Your task to perform on an android device: snooze an email in the gmail app Image 0: 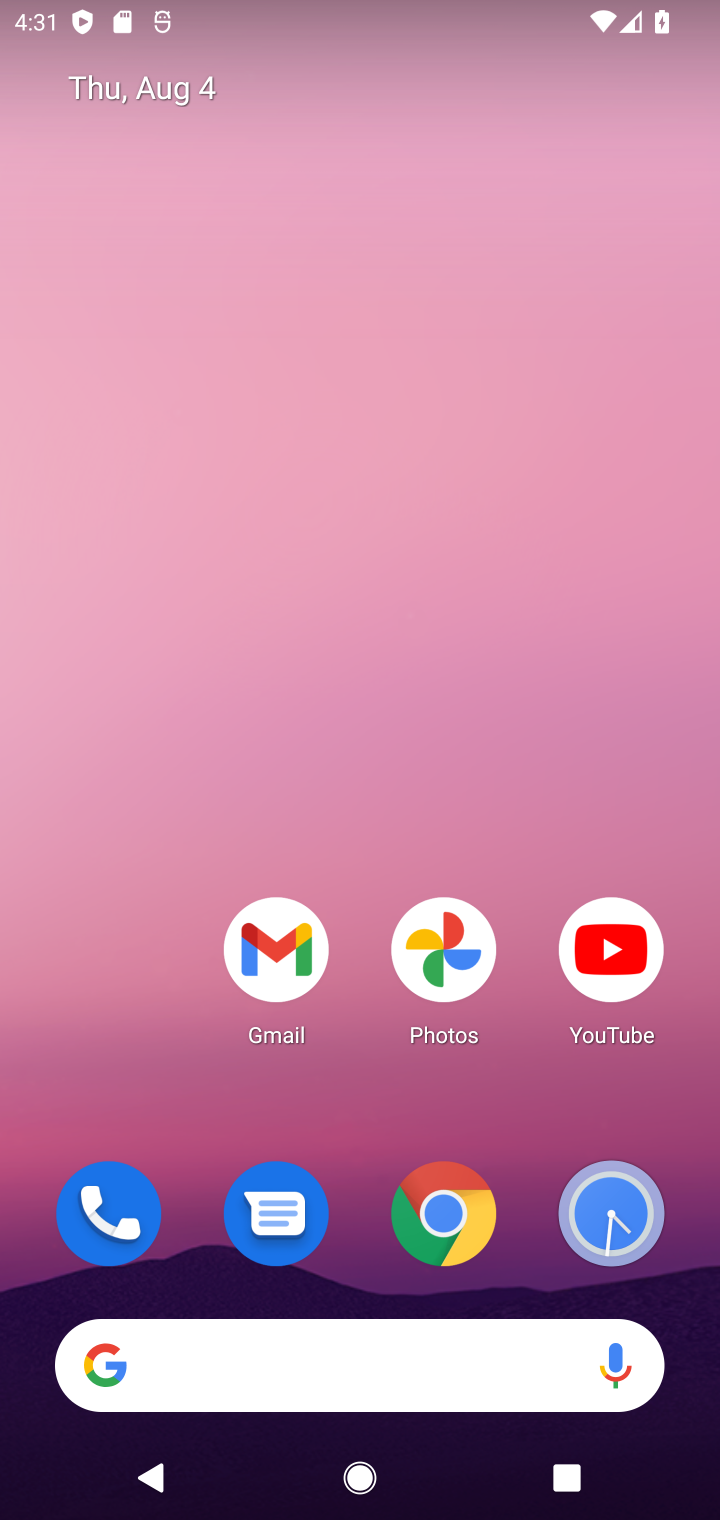
Step 0: drag from (281, 1394) to (338, 308)
Your task to perform on an android device: snooze an email in the gmail app Image 1: 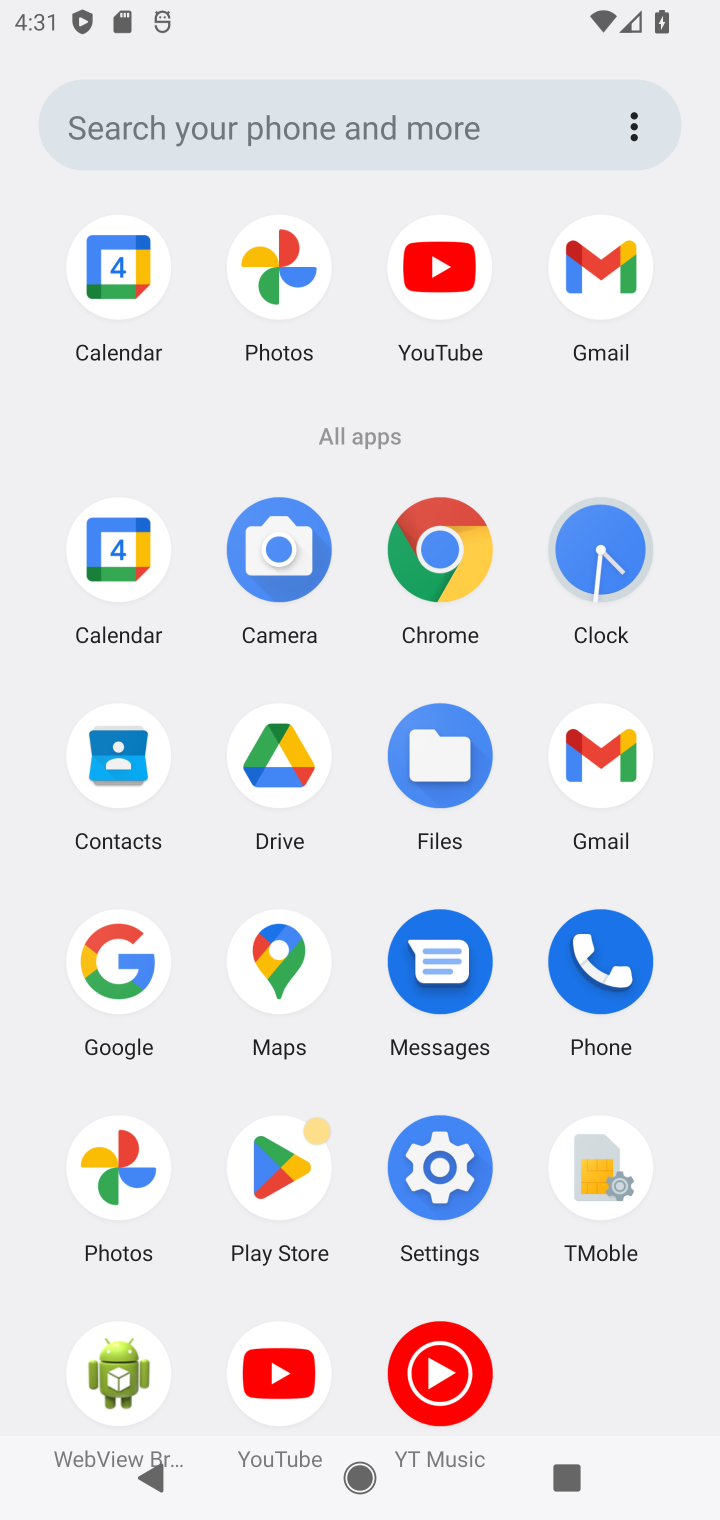
Step 1: click (607, 760)
Your task to perform on an android device: snooze an email in the gmail app Image 2: 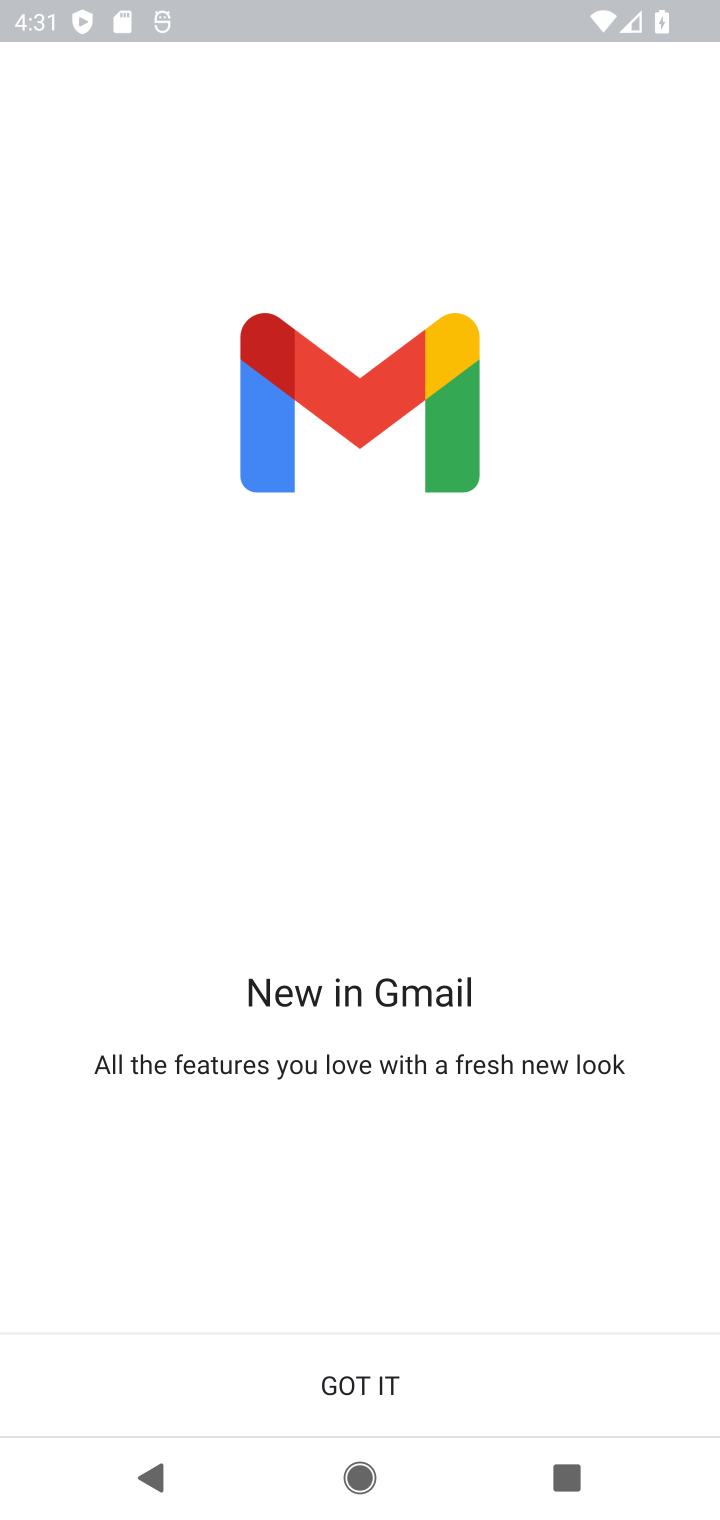
Step 2: click (357, 1378)
Your task to perform on an android device: snooze an email in the gmail app Image 3: 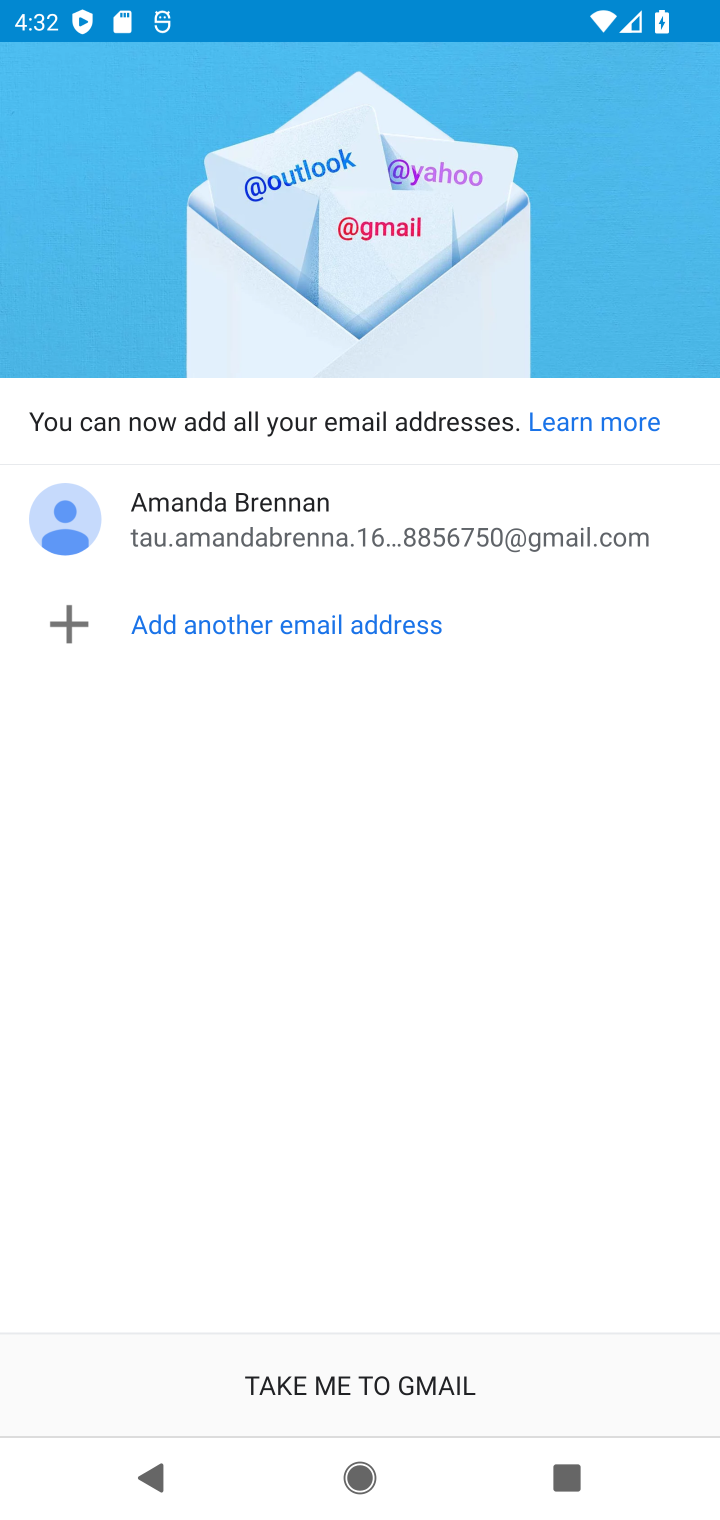
Step 3: click (356, 1386)
Your task to perform on an android device: snooze an email in the gmail app Image 4: 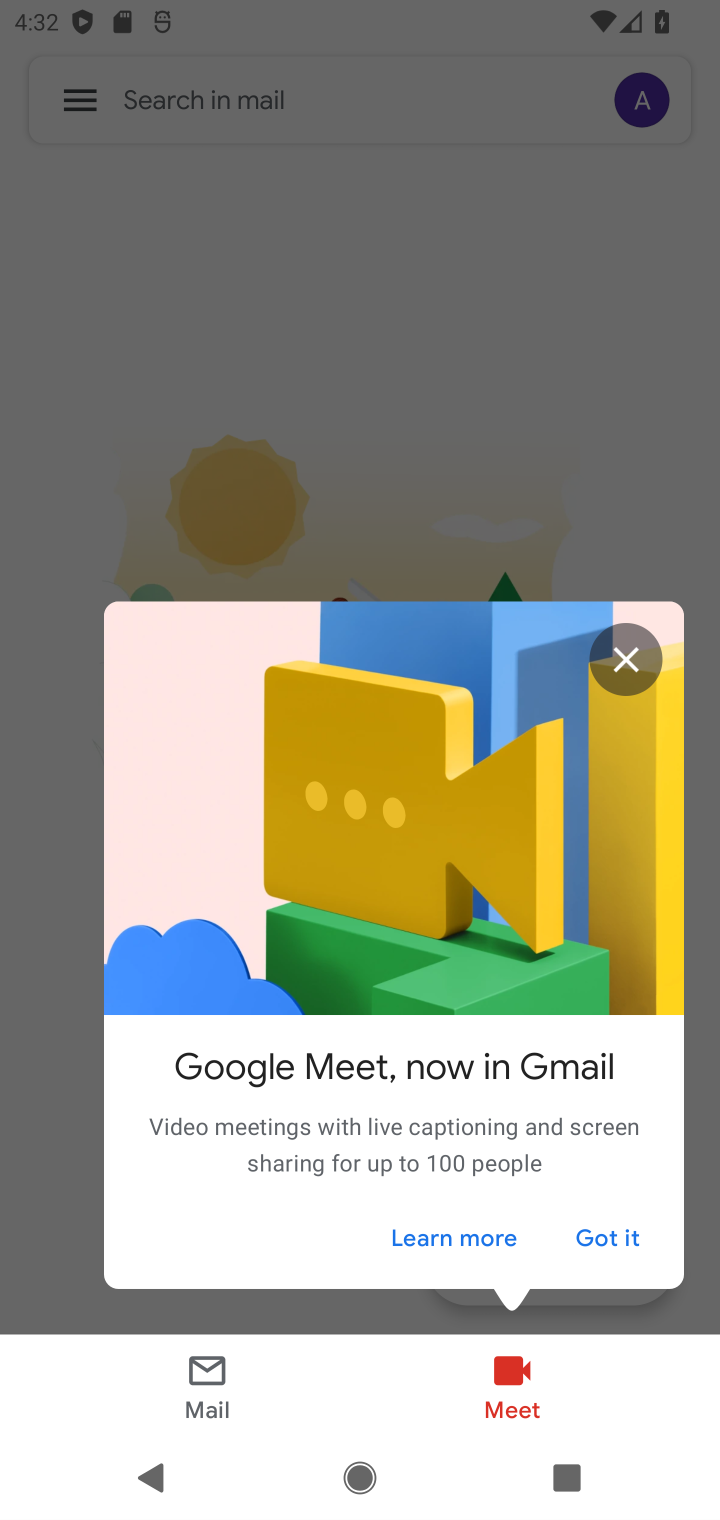
Step 4: click (75, 112)
Your task to perform on an android device: snooze an email in the gmail app Image 5: 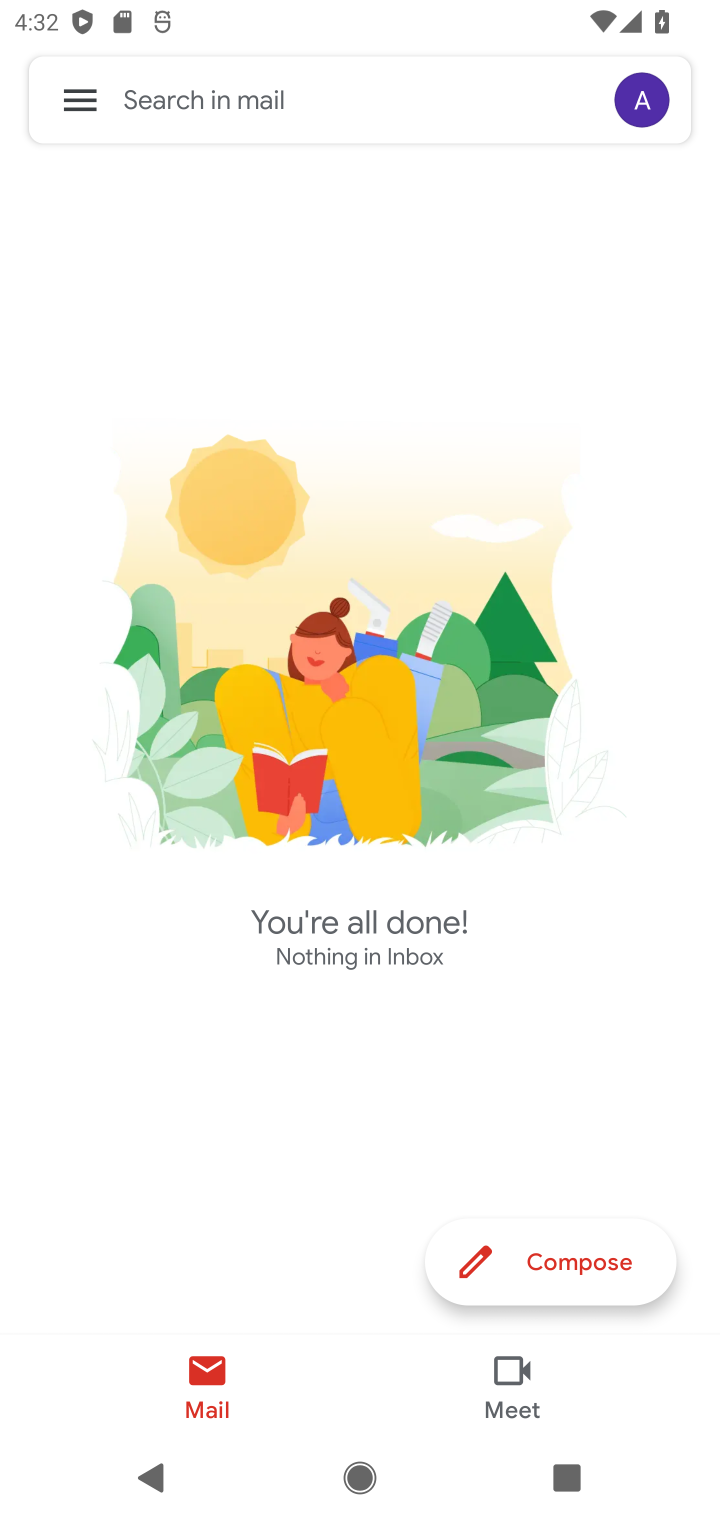
Step 5: click (75, 112)
Your task to perform on an android device: snooze an email in the gmail app Image 6: 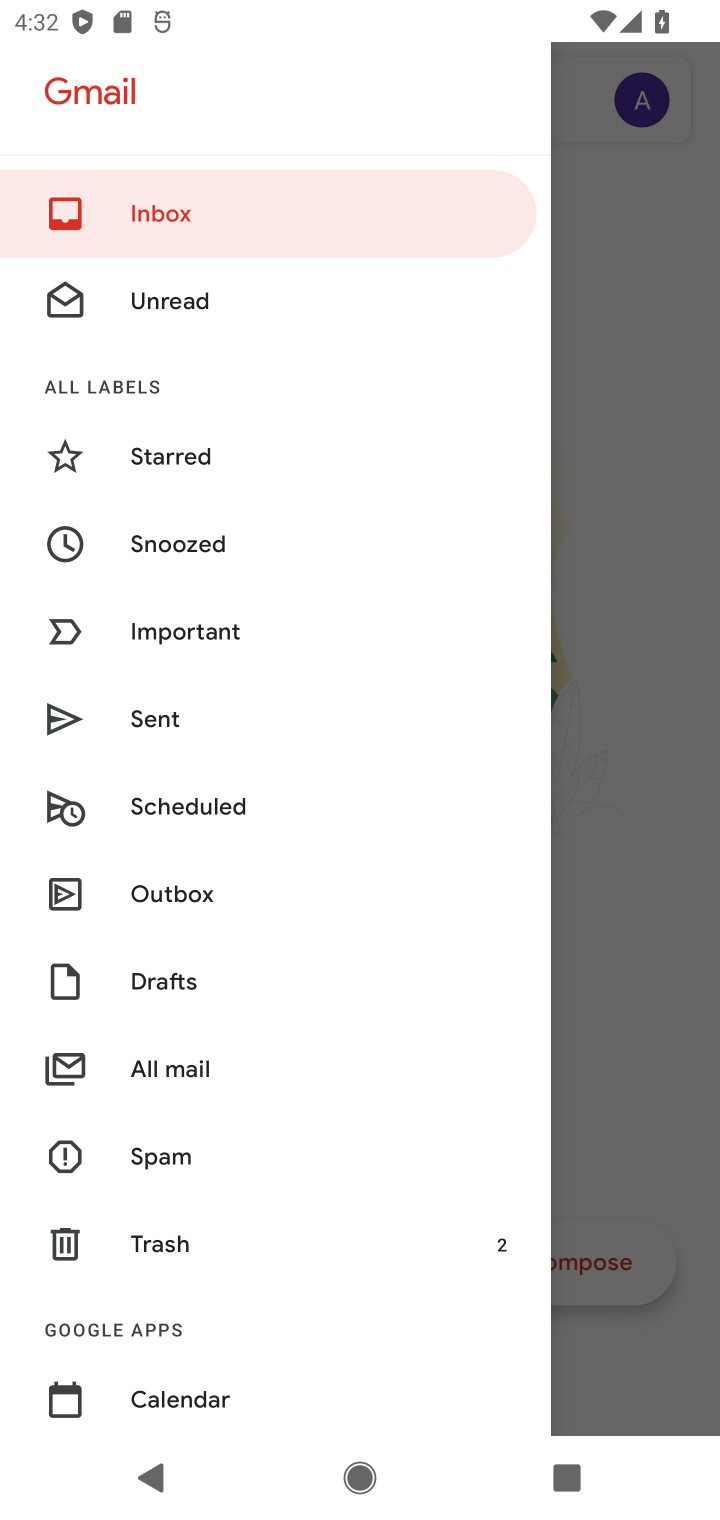
Step 6: click (200, 1067)
Your task to perform on an android device: snooze an email in the gmail app Image 7: 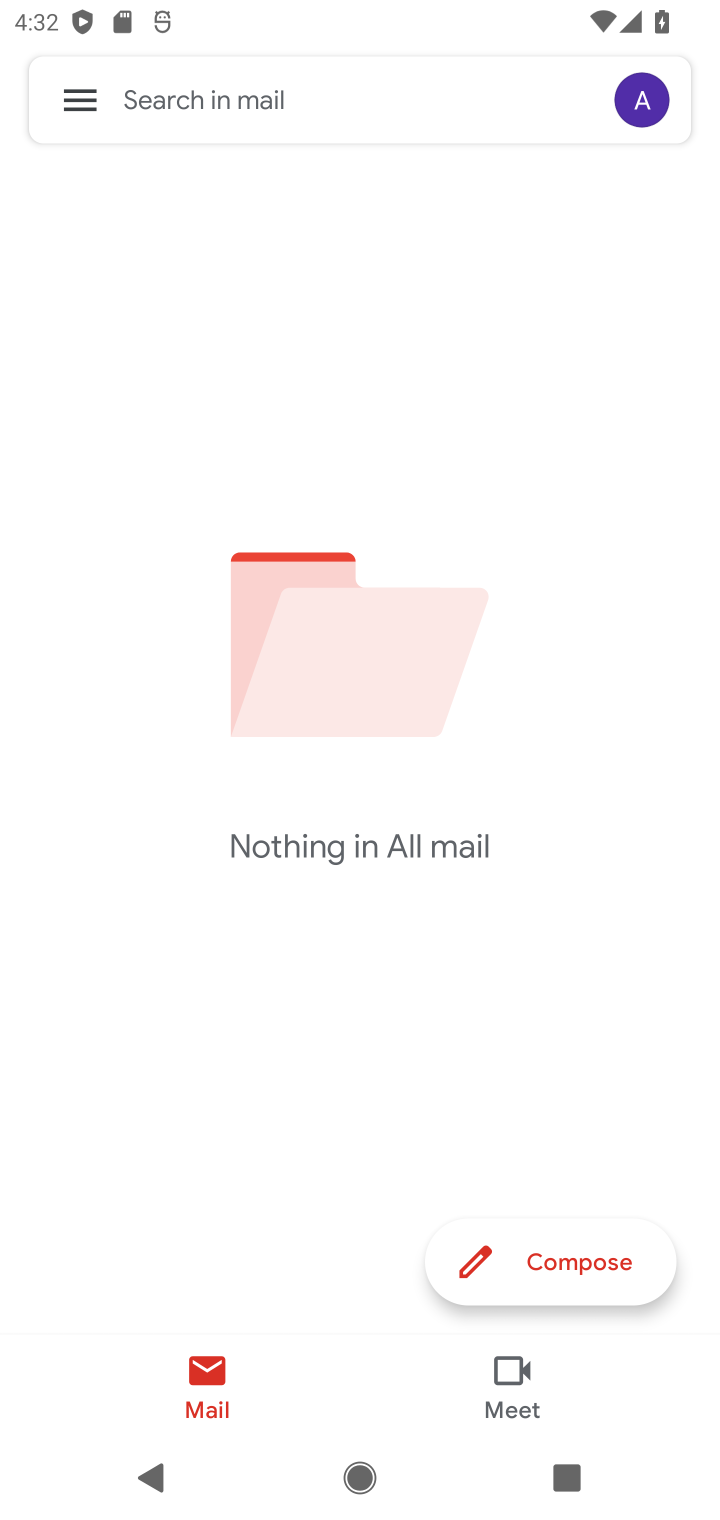
Step 7: click (76, 102)
Your task to perform on an android device: snooze an email in the gmail app Image 8: 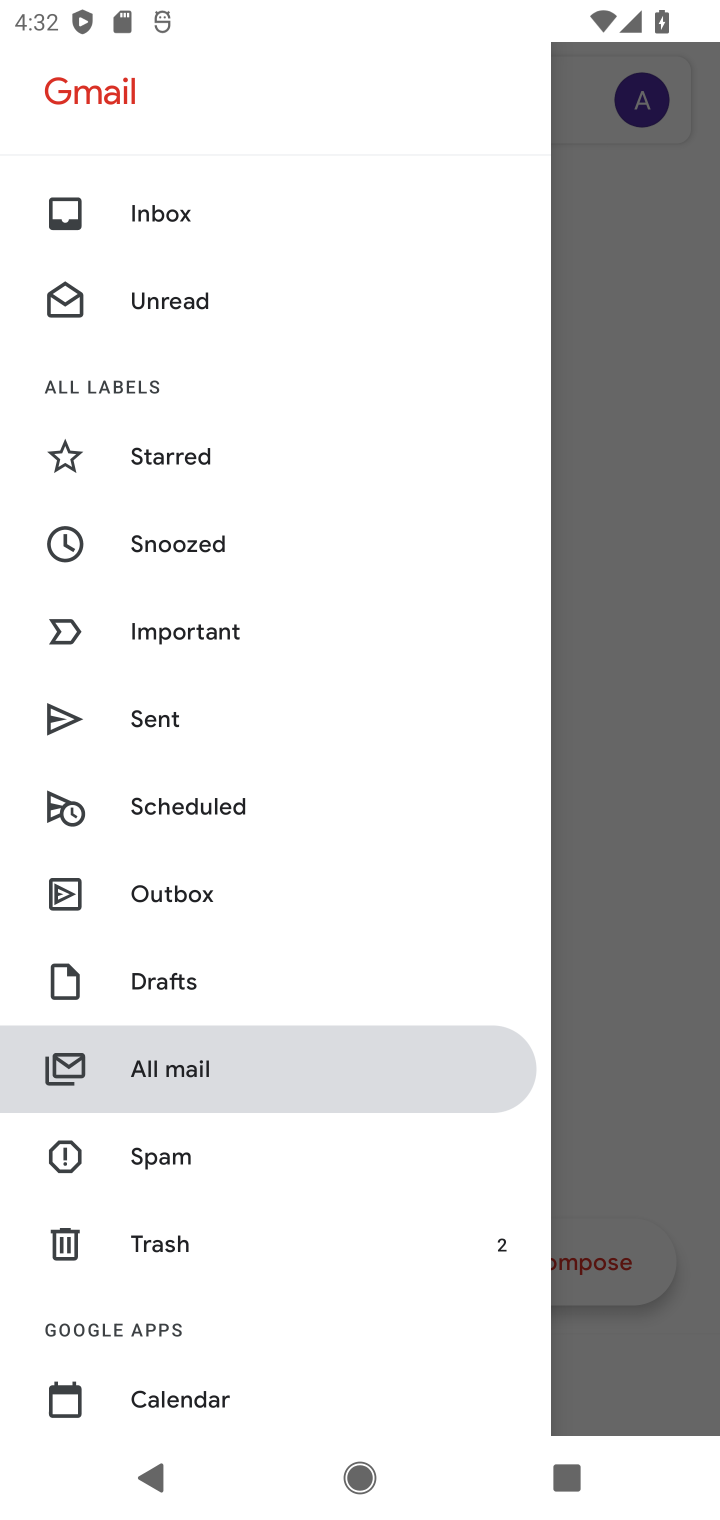
Step 8: click (162, 295)
Your task to perform on an android device: snooze an email in the gmail app Image 9: 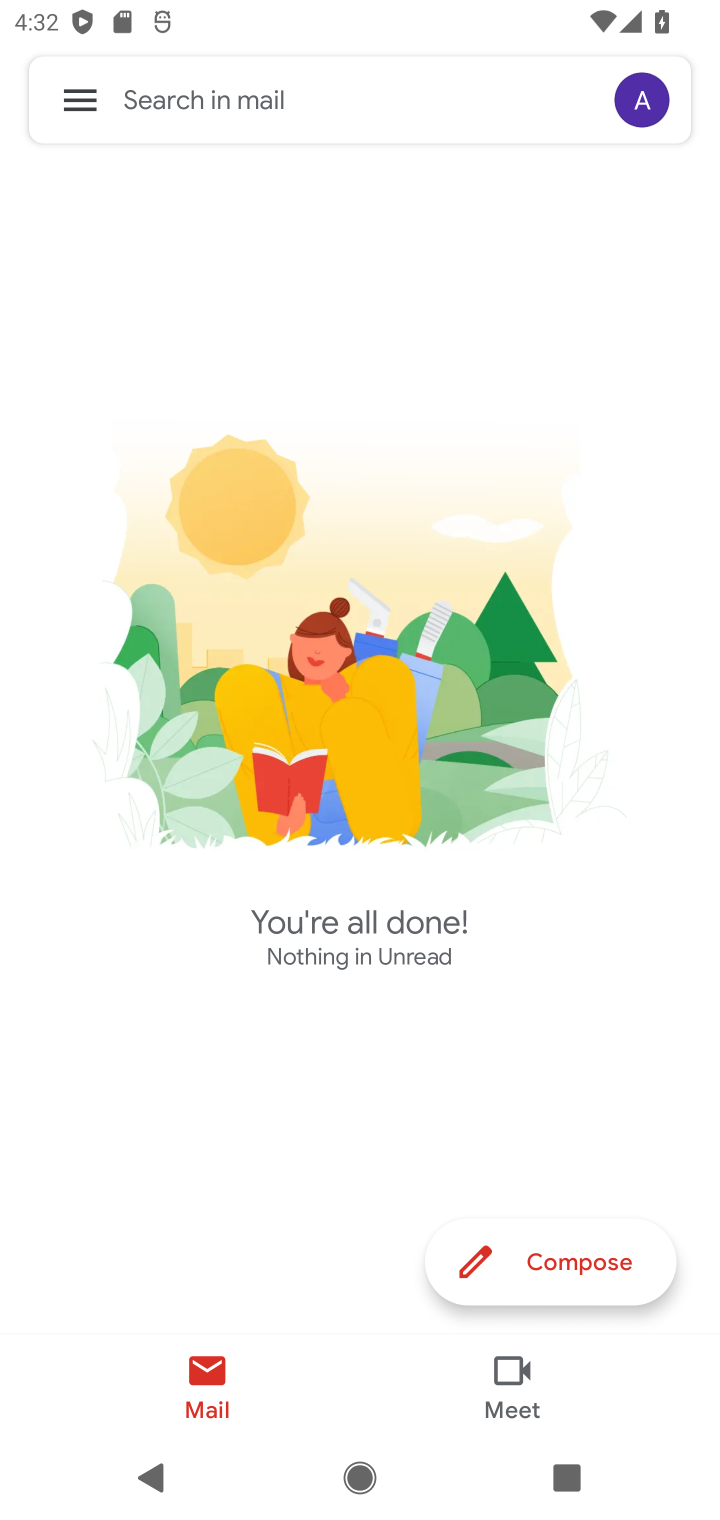
Step 9: click (73, 107)
Your task to perform on an android device: snooze an email in the gmail app Image 10: 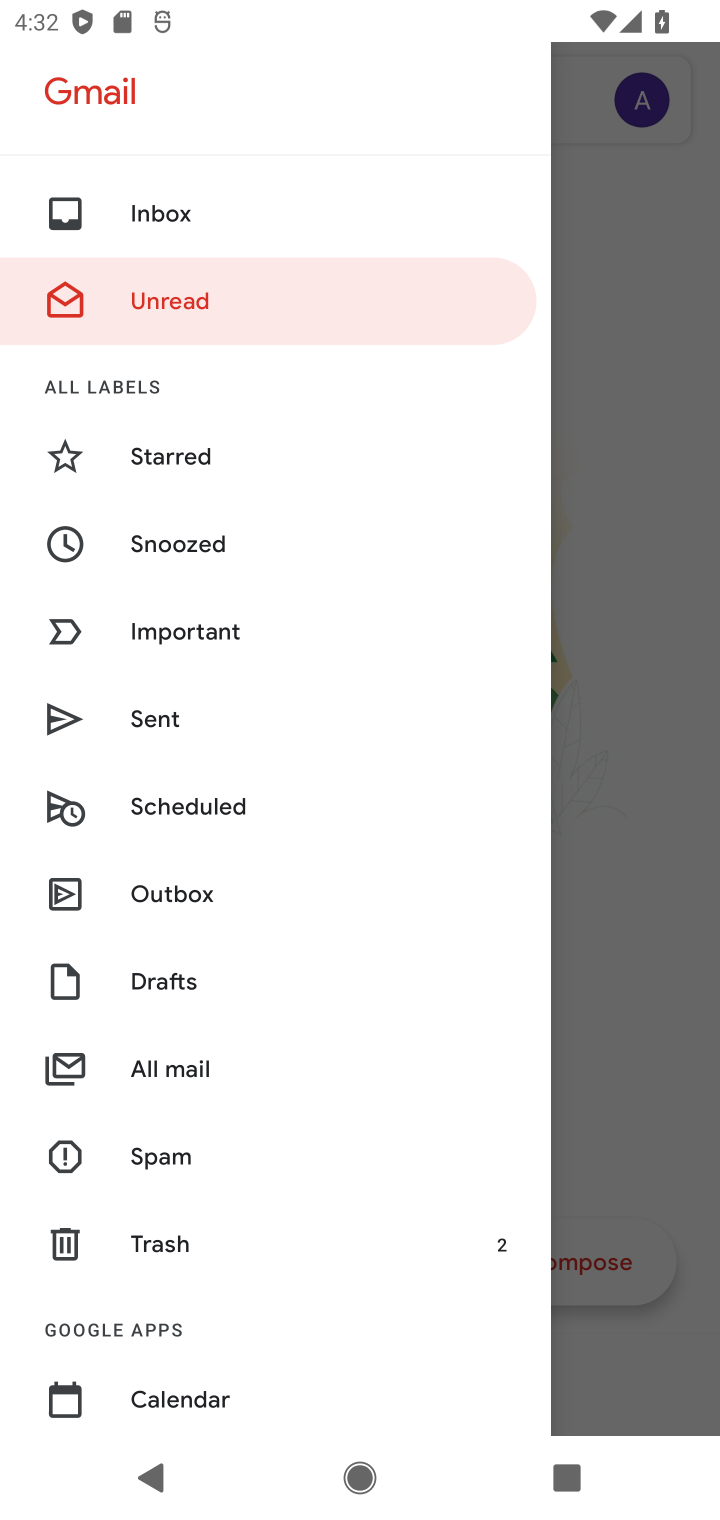
Step 10: click (169, 449)
Your task to perform on an android device: snooze an email in the gmail app Image 11: 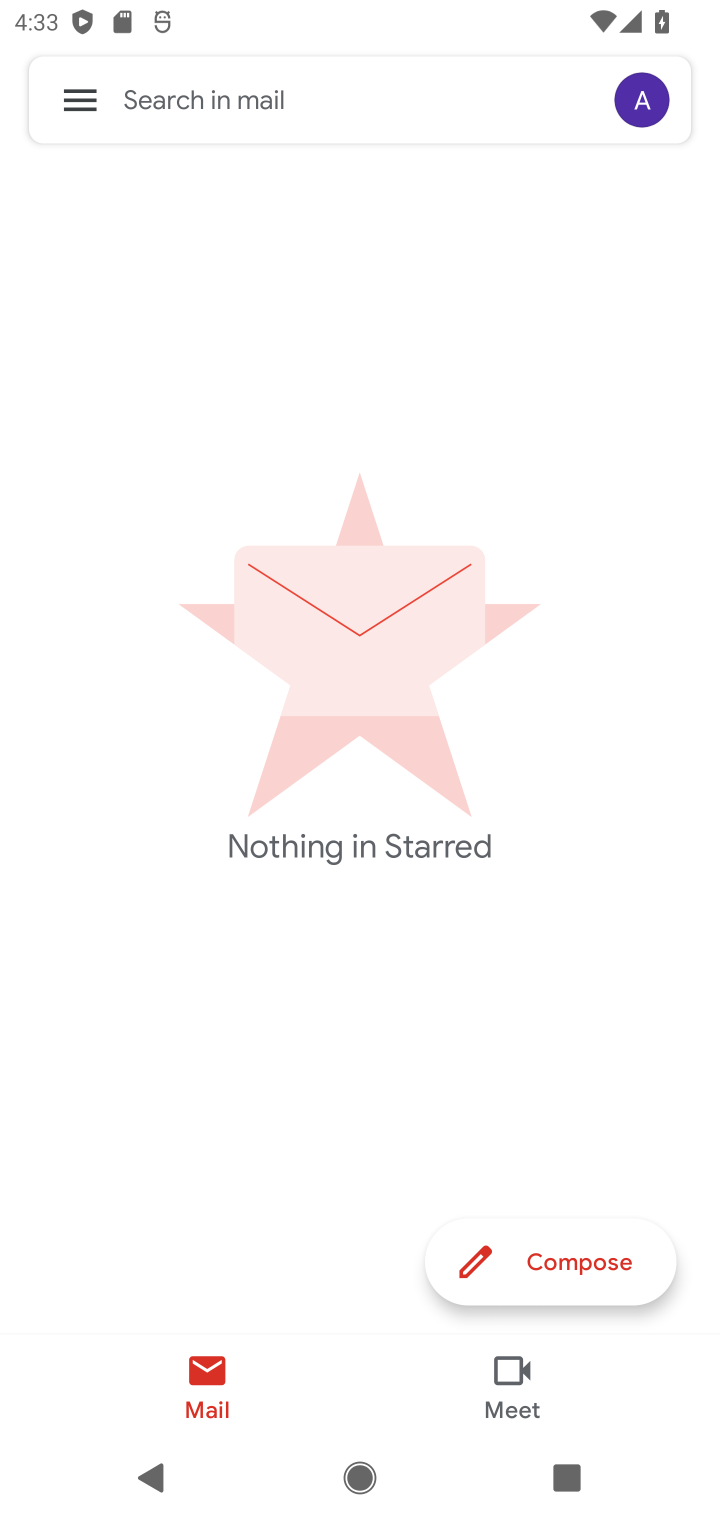
Step 11: click (80, 94)
Your task to perform on an android device: snooze an email in the gmail app Image 12: 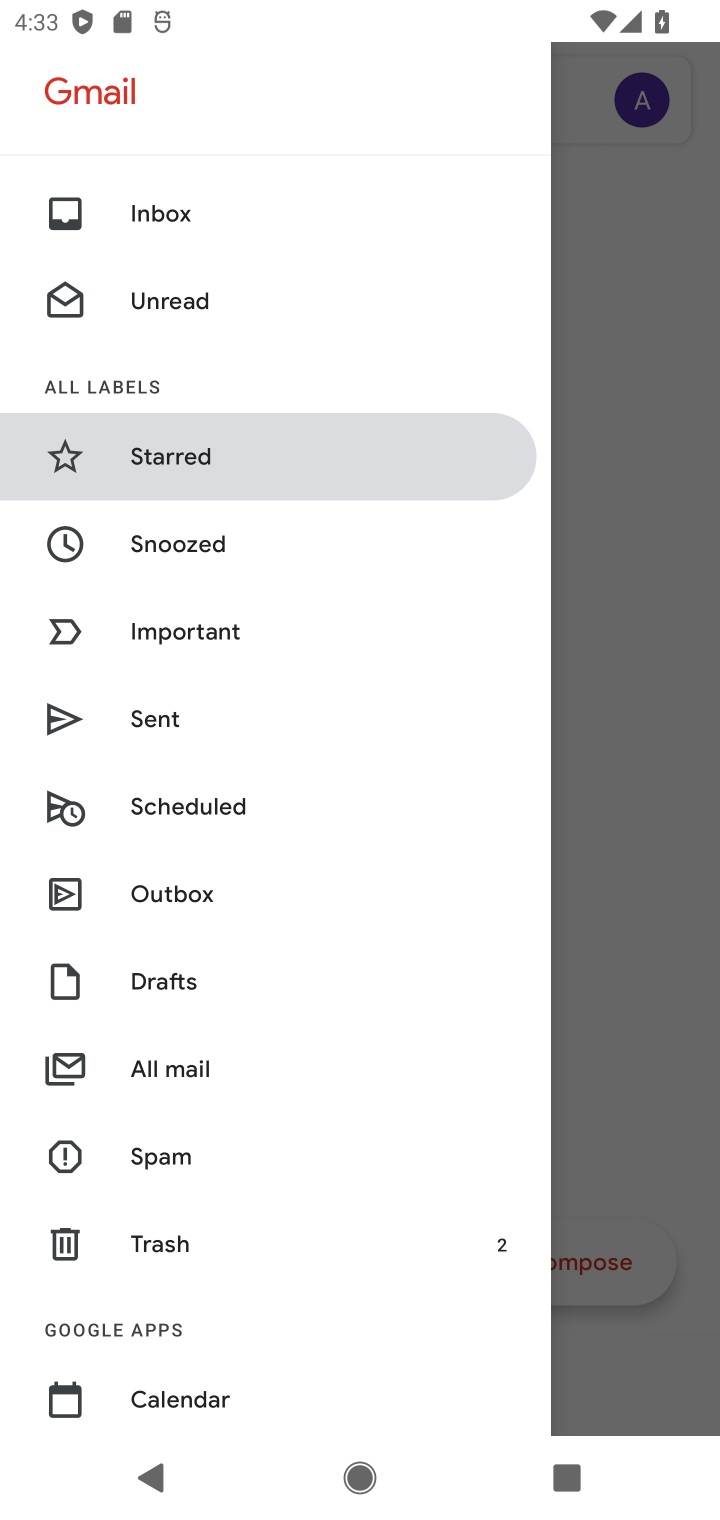
Step 12: click (207, 567)
Your task to perform on an android device: snooze an email in the gmail app Image 13: 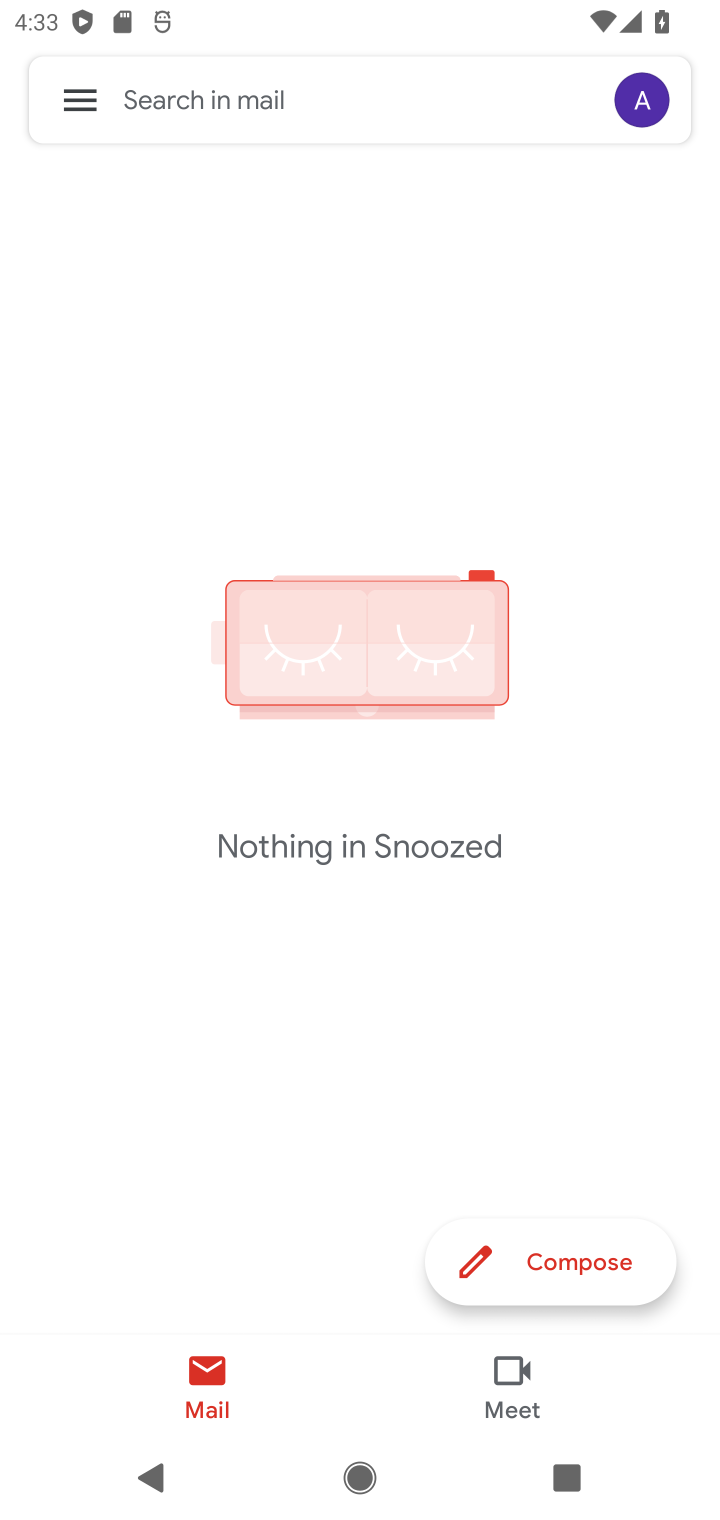
Step 13: task complete